Your task to perform on an android device: Open CNN.com Image 0: 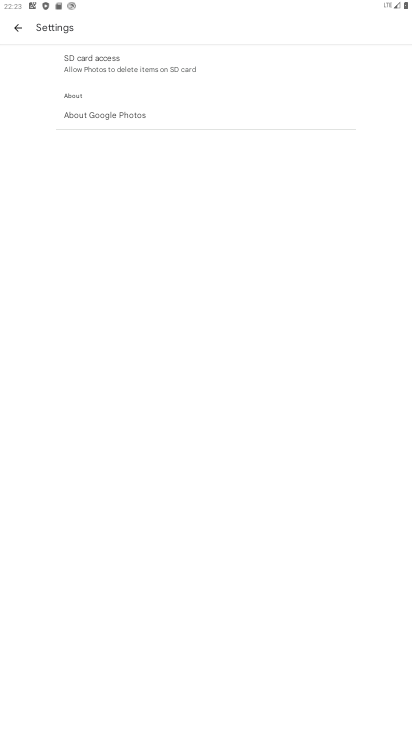
Step 0: click (238, 126)
Your task to perform on an android device: Open CNN.com Image 1: 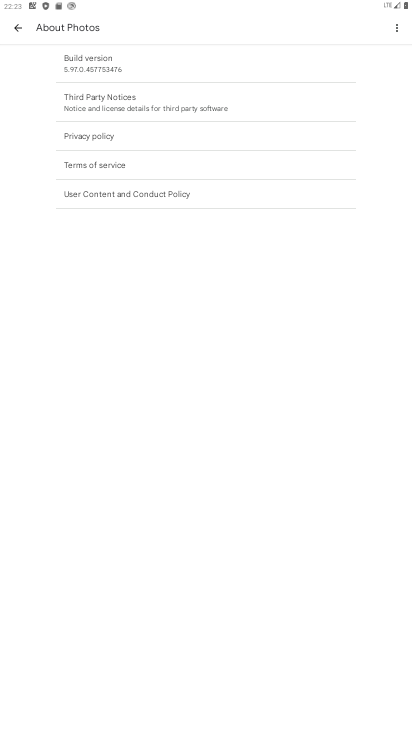
Step 1: press home button
Your task to perform on an android device: Open CNN.com Image 2: 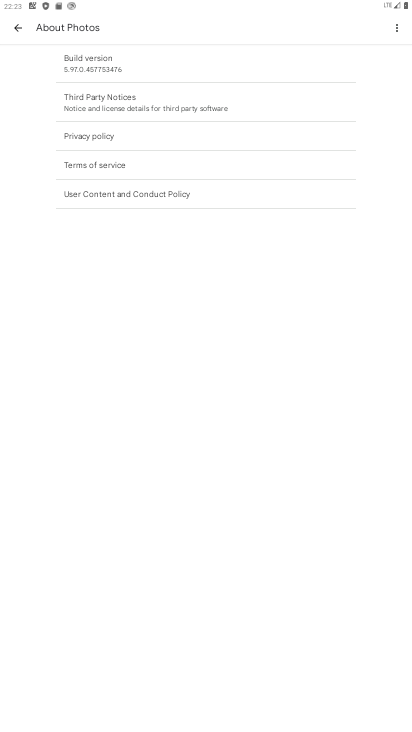
Step 2: press home button
Your task to perform on an android device: Open CNN.com Image 3: 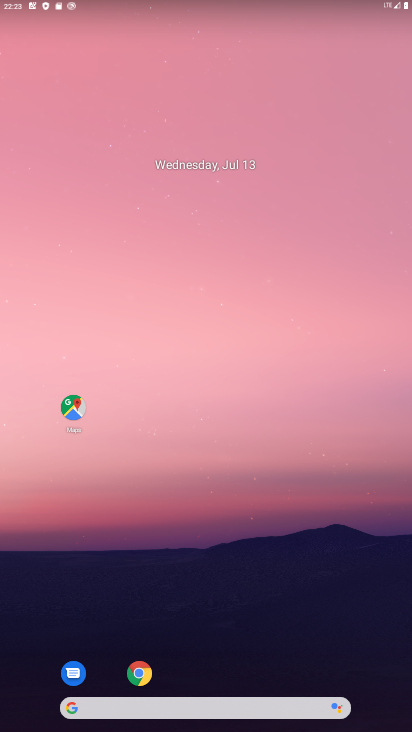
Step 3: drag from (199, 674) to (255, 187)
Your task to perform on an android device: Open CNN.com Image 4: 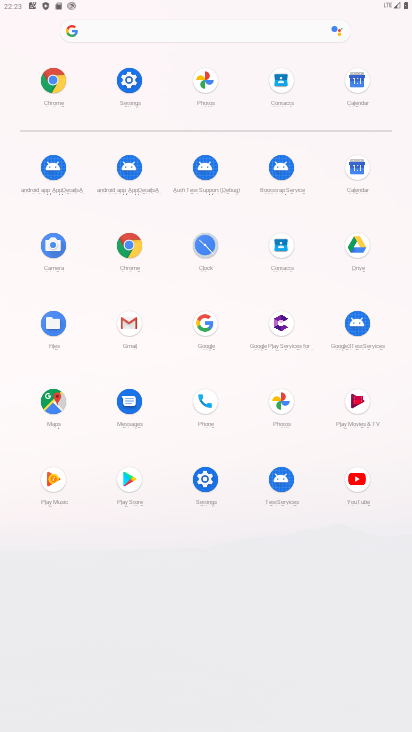
Step 4: click (161, 27)
Your task to perform on an android device: Open CNN.com Image 5: 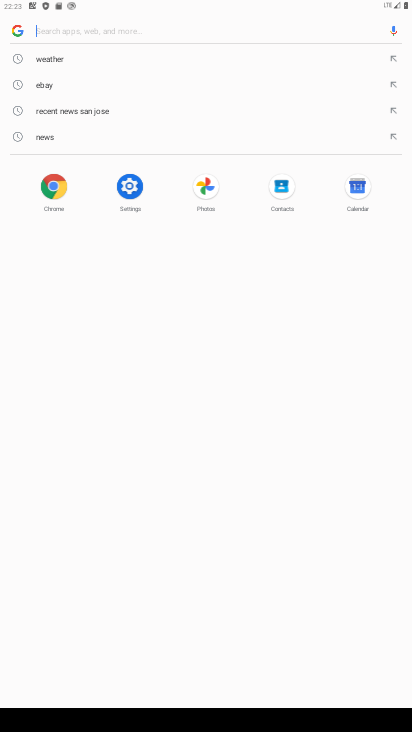
Step 5: type "cnn.com"
Your task to perform on an android device: Open CNN.com Image 6: 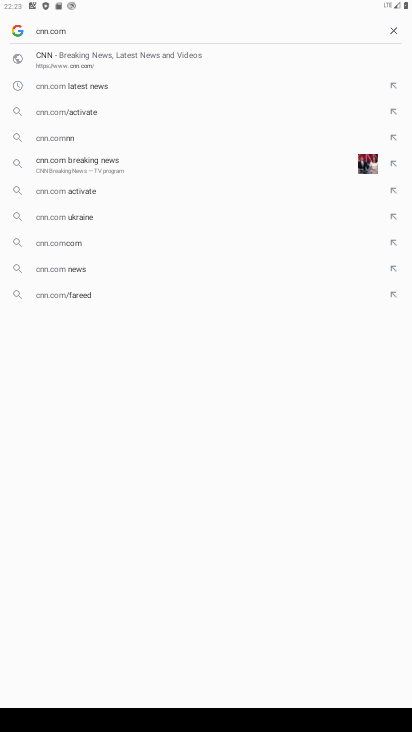
Step 6: click (76, 52)
Your task to perform on an android device: Open CNN.com Image 7: 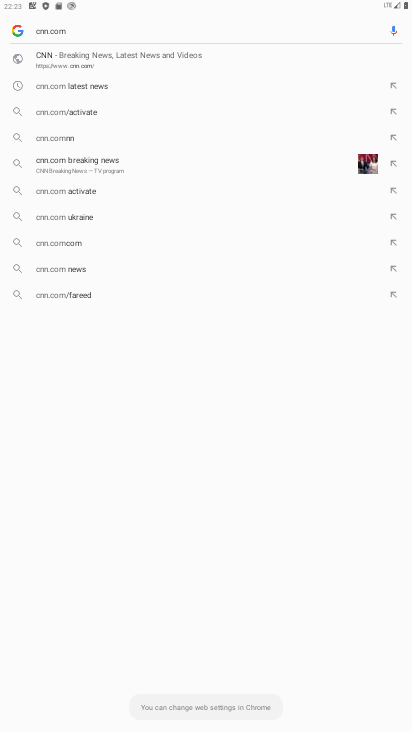
Step 7: task complete